Your task to perform on an android device: Open location settings Image 0: 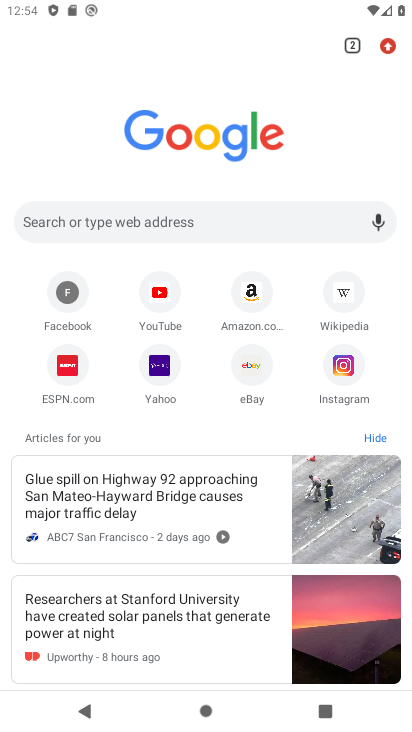
Step 0: press home button
Your task to perform on an android device: Open location settings Image 1: 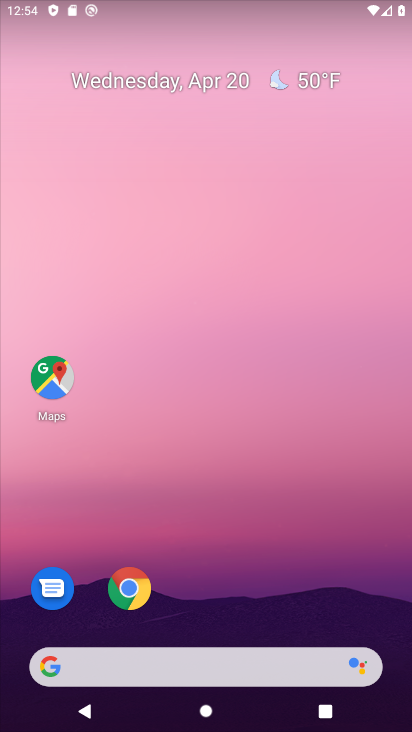
Step 1: drag from (137, 639) to (163, 294)
Your task to perform on an android device: Open location settings Image 2: 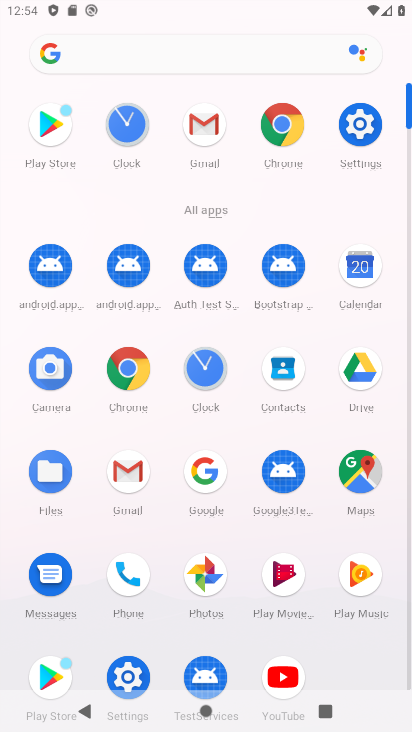
Step 2: click (361, 135)
Your task to perform on an android device: Open location settings Image 3: 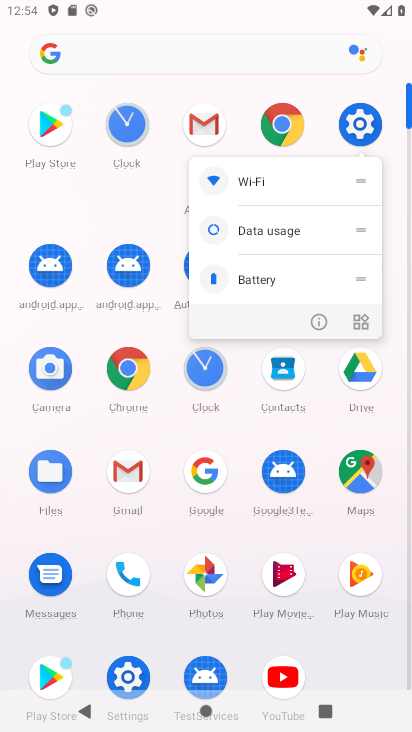
Step 3: click (363, 121)
Your task to perform on an android device: Open location settings Image 4: 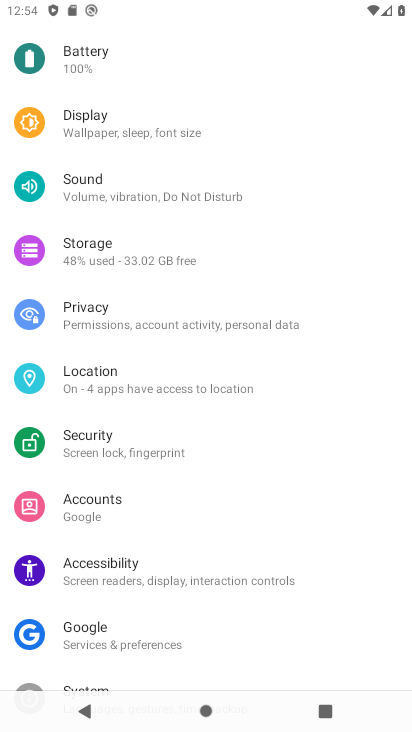
Step 4: click (118, 374)
Your task to perform on an android device: Open location settings Image 5: 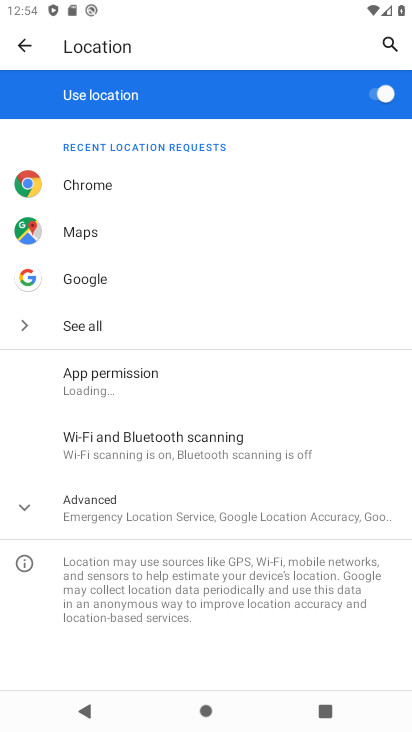
Step 5: click (81, 509)
Your task to perform on an android device: Open location settings Image 6: 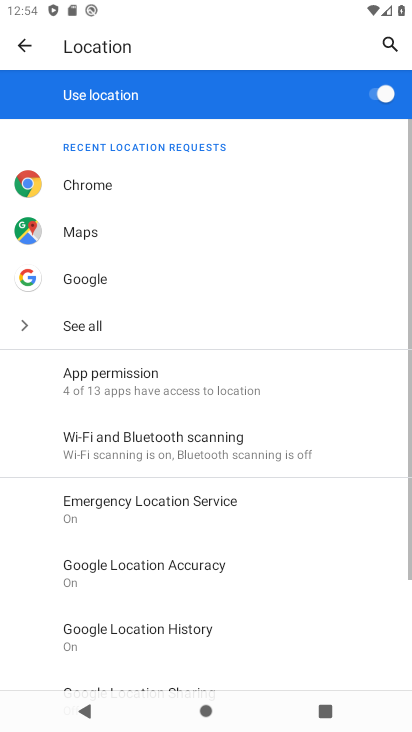
Step 6: task complete